Your task to perform on an android device: change your default location settings in chrome Image 0: 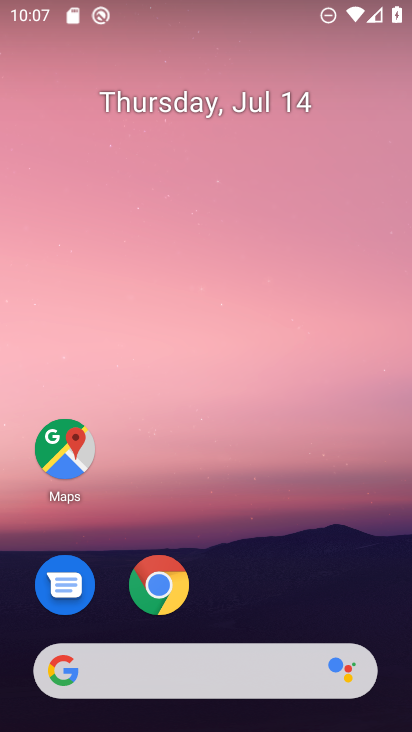
Step 0: click (175, 593)
Your task to perform on an android device: change your default location settings in chrome Image 1: 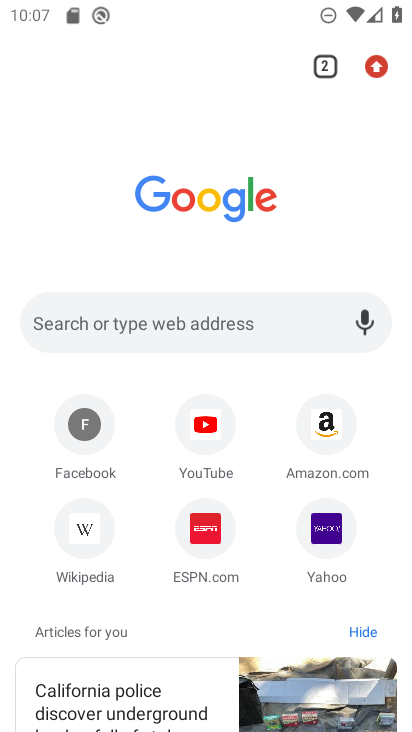
Step 1: drag from (381, 67) to (156, 624)
Your task to perform on an android device: change your default location settings in chrome Image 2: 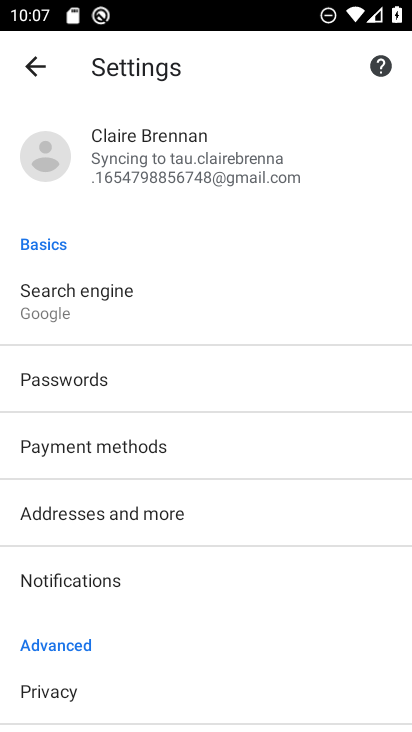
Step 2: drag from (156, 624) to (42, 154)
Your task to perform on an android device: change your default location settings in chrome Image 3: 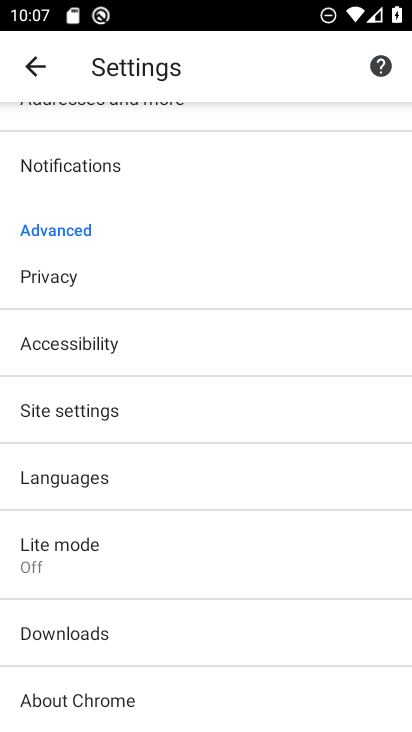
Step 3: click (75, 410)
Your task to perform on an android device: change your default location settings in chrome Image 4: 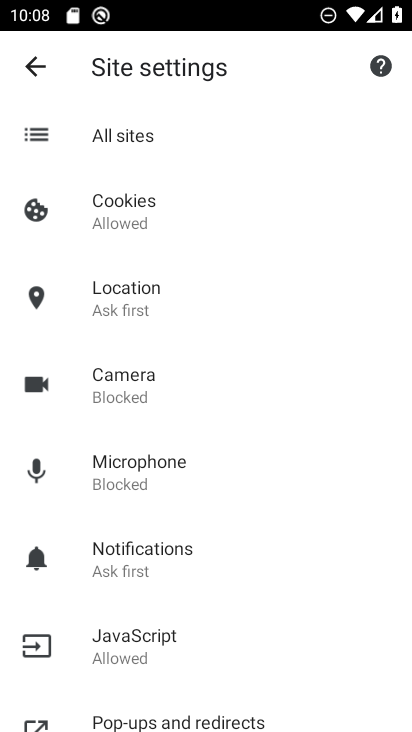
Step 4: click (121, 300)
Your task to perform on an android device: change your default location settings in chrome Image 5: 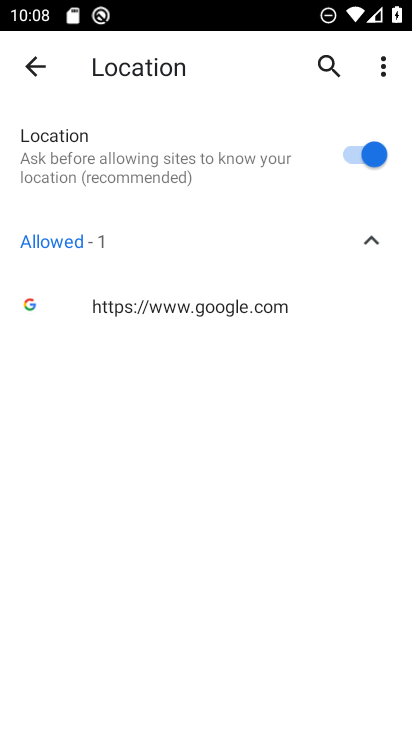
Step 5: click (345, 162)
Your task to perform on an android device: change your default location settings in chrome Image 6: 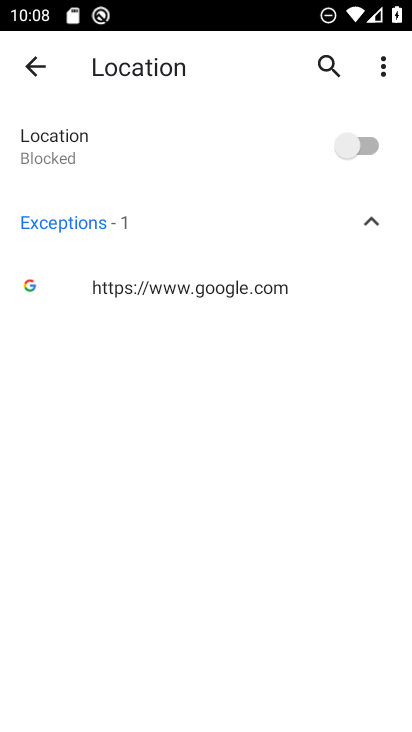
Step 6: task complete